Your task to perform on an android device: Go to sound settings Image 0: 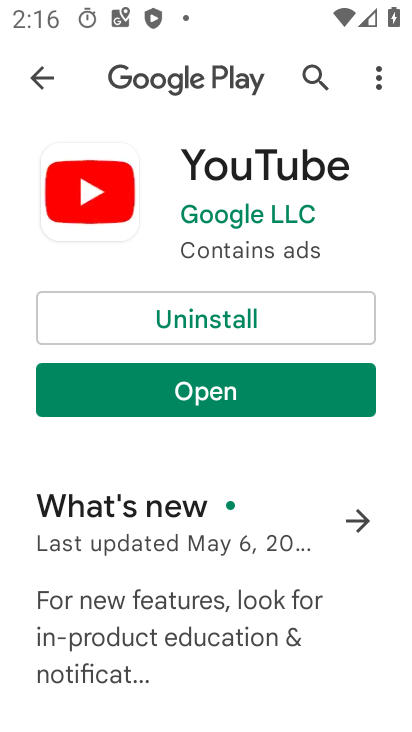
Step 0: press home button
Your task to perform on an android device: Go to sound settings Image 1: 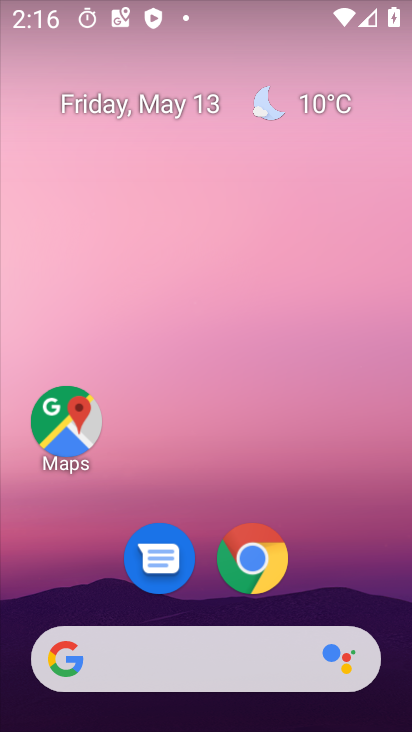
Step 1: drag from (196, 588) to (211, 154)
Your task to perform on an android device: Go to sound settings Image 2: 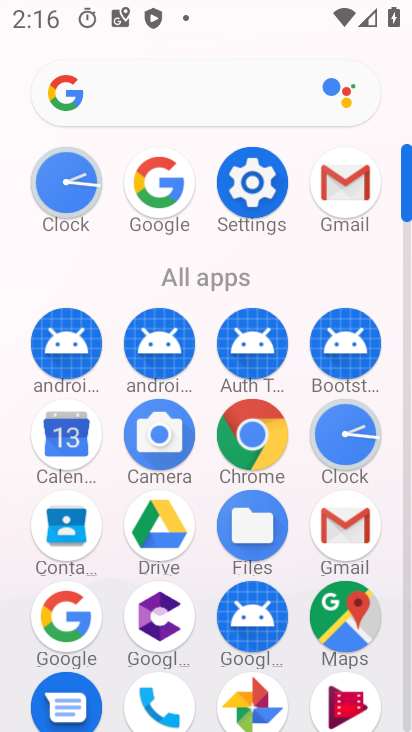
Step 2: click (243, 175)
Your task to perform on an android device: Go to sound settings Image 3: 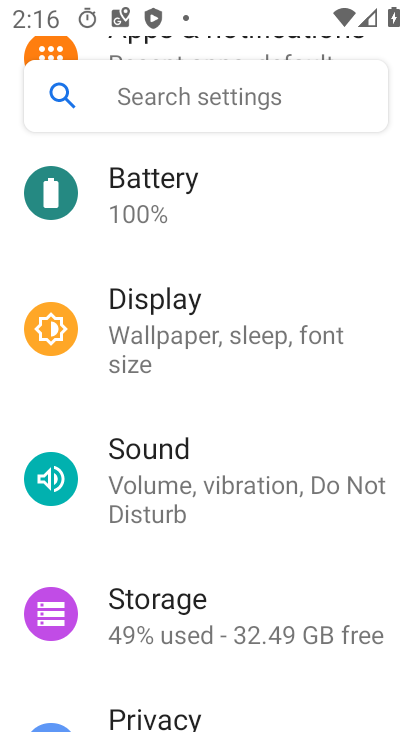
Step 3: click (179, 446)
Your task to perform on an android device: Go to sound settings Image 4: 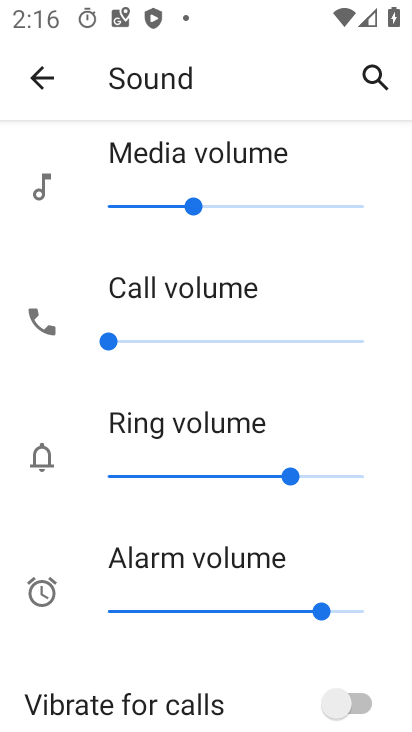
Step 4: task complete